Your task to perform on an android device: Open wifi settings Image 0: 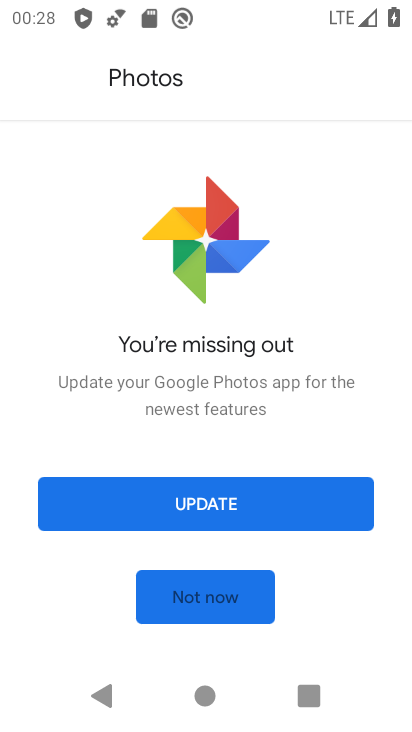
Step 0: press home button
Your task to perform on an android device: Open wifi settings Image 1: 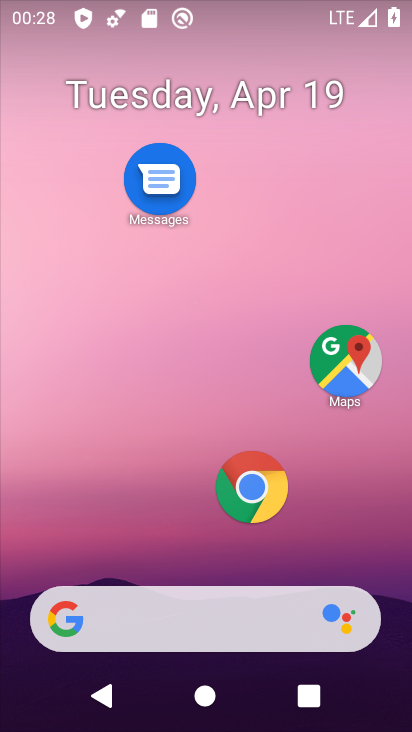
Step 1: drag from (168, 456) to (186, 43)
Your task to perform on an android device: Open wifi settings Image 2: 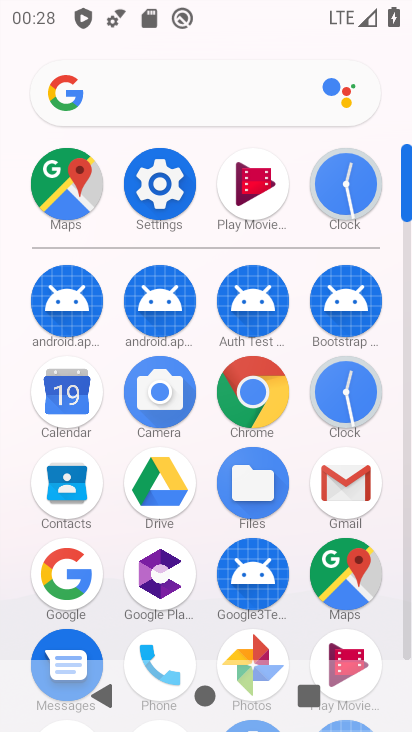
Step 2: click (161, 178)
Your task to perform on an android device: Open wifi settings Image 3: 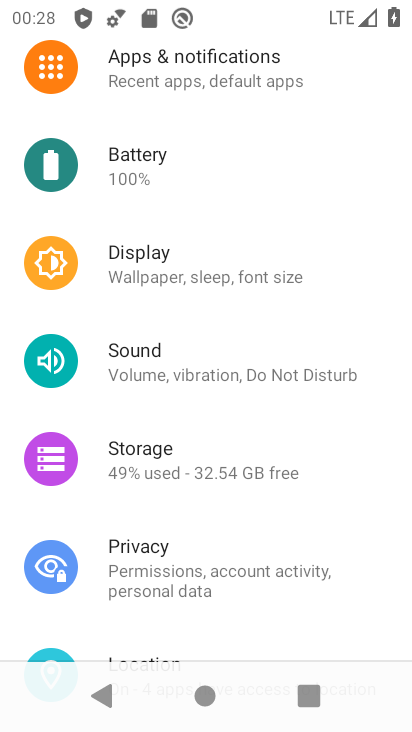
Step 3: drag from (228, 460) to (206, 199)
Your task to perform on an android device: Open wifi settings Image 4: 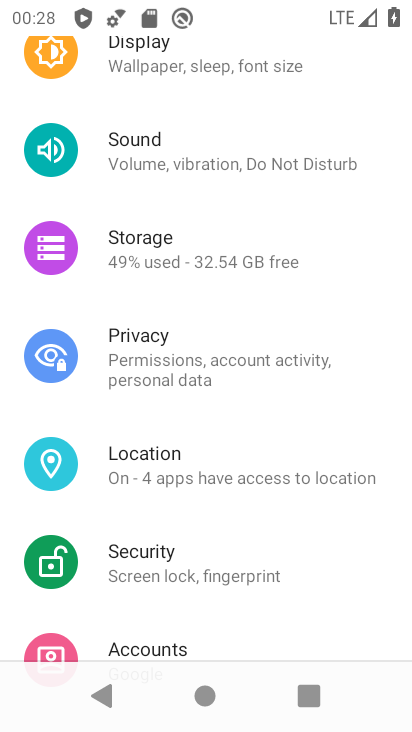
Step 4: drag from (199, 573) to (149, 228)
Your task to perform on an android device: Open wifi settings Image 5: 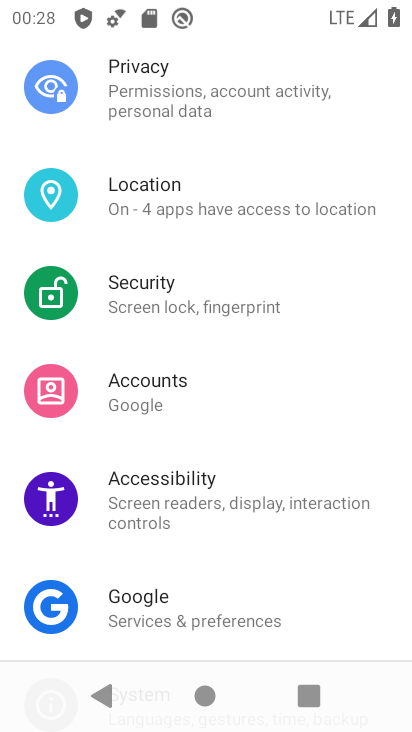
Step 5: drag from (201, 556) to (178, 216)
Your task to perform on an android device: Open wifi settings Image 6: 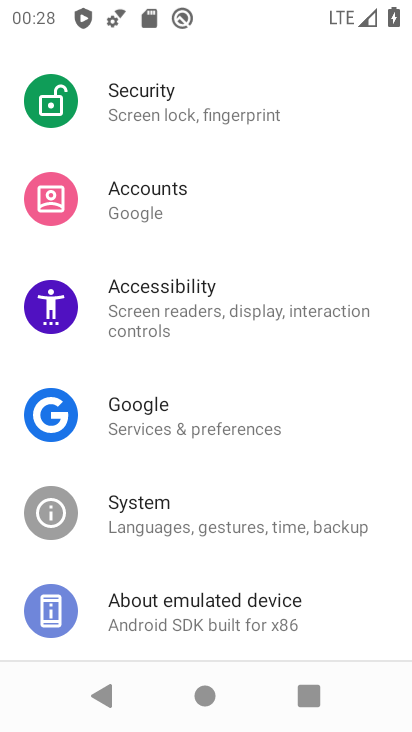
Step 6: drag from (211, 181) to (227, 655)
Your task to perform on an android device: Open wifi settings Image 7: 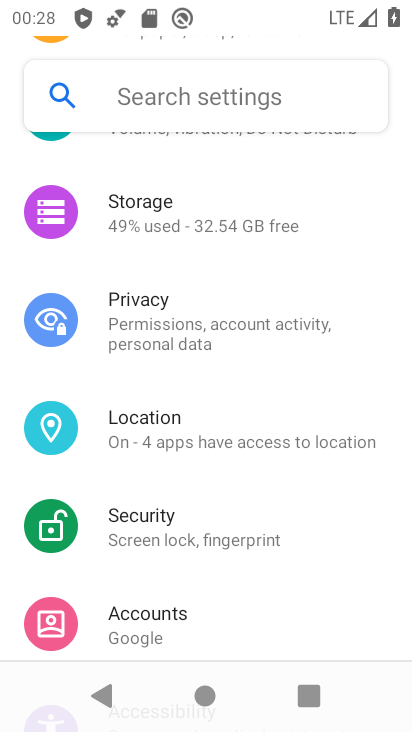
Step 7: drag from (188, 192) to (212, 623)
Your task to perform on an android device: Open wifi settings Image 8: 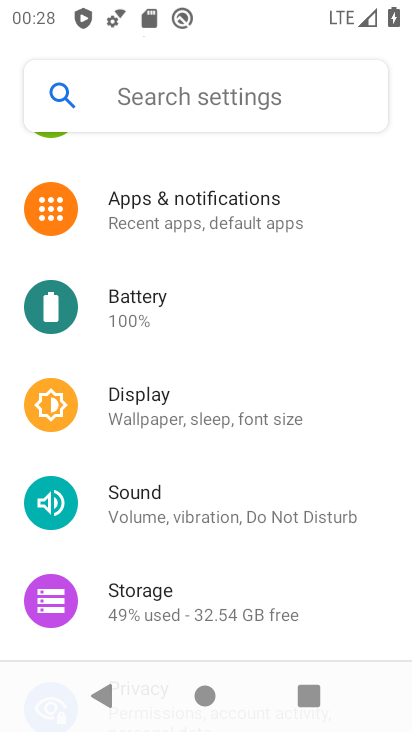
Step 8: drag from (233, 275) to (254, 588)
Your task to perform on an android device: Open wifi settings Image 9: 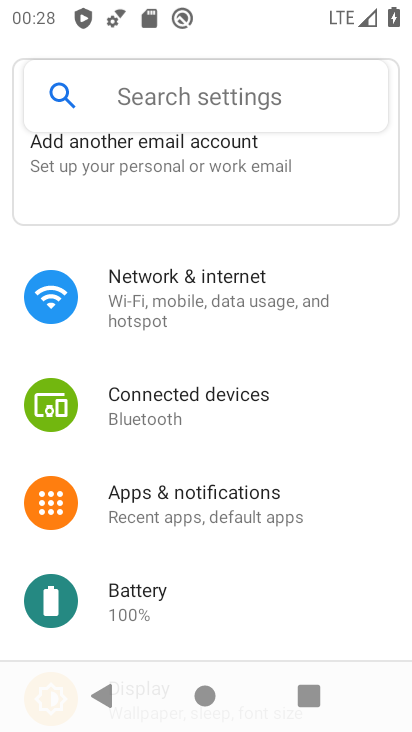
Step 9: click (173, 286)
Your task to perform on an android device: Open wifi settings Image 10: 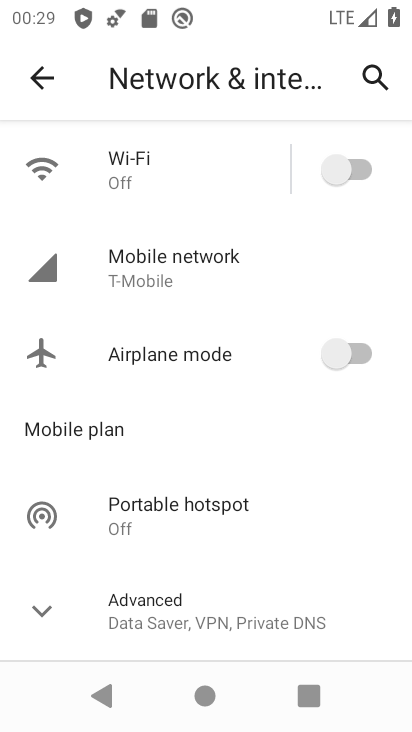
Step 10: click (134, 167)
Your task to perform on an android device: Open wifi settings Image 11: 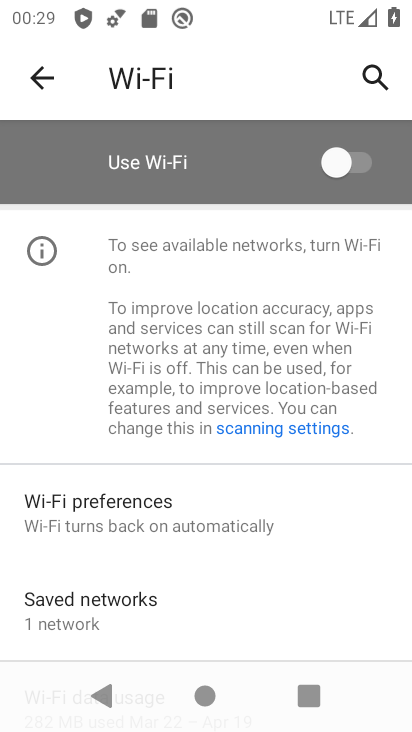
Step 11: task complete